Your task to perform on an android device: Open calendar and show me the first week of next month Image 0: 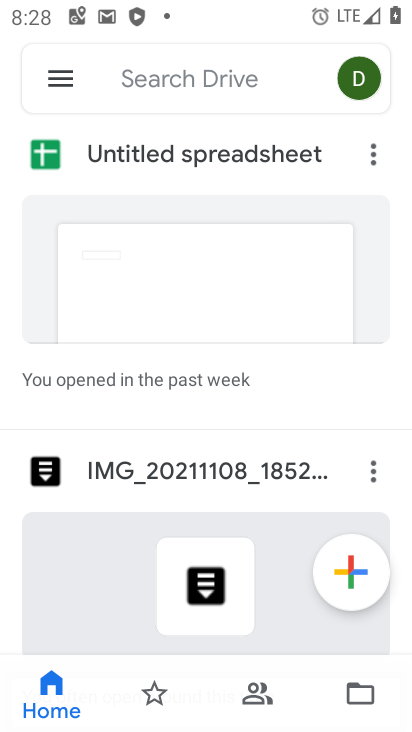
Step 0: press home button
Your task to perform on an android device: Open calendar and show me the first week of next month Image 1: 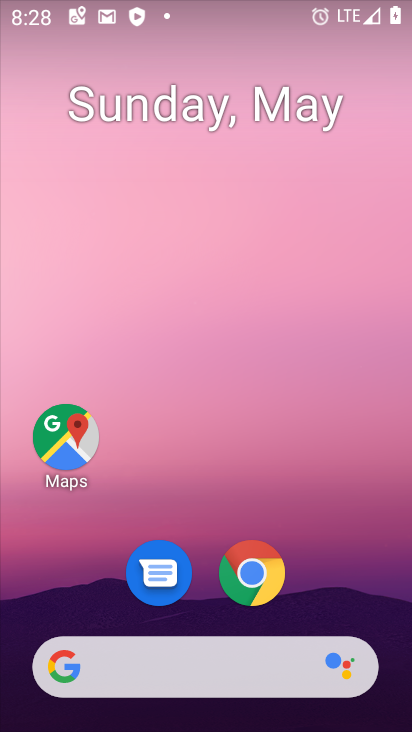
Step 1: drag from (219, 470) to (228, 9)
Your task to perform on an android device: Open calendar and show me the first week of next month Image 2: 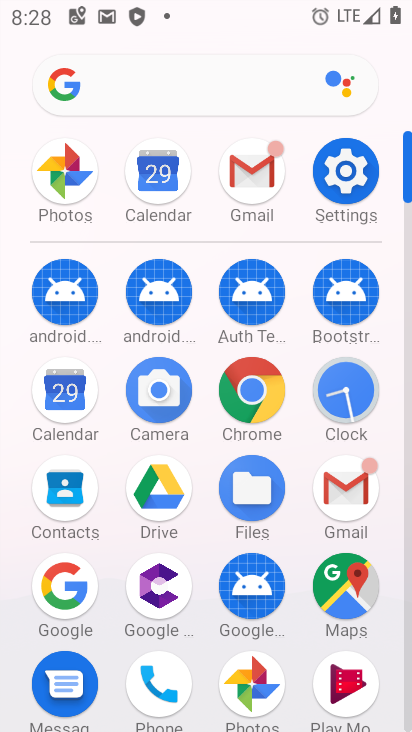
Step 2: click (164, 171)
Your task to perform on an android device: Open calendar and show me the first week of next month Image 3: 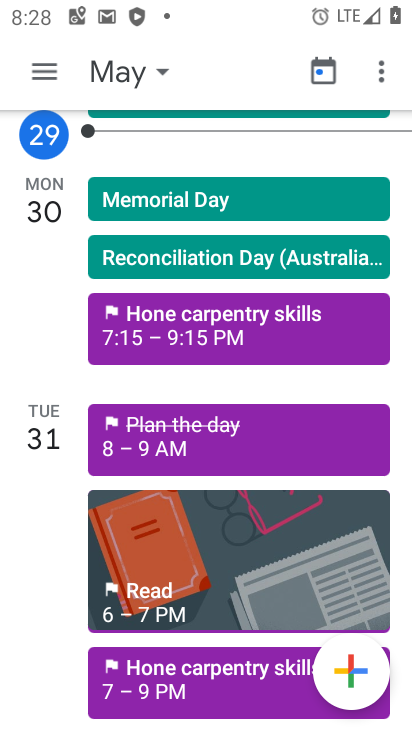
Step 3: click (47, 67)
Your task to perform on an android device: Open calendar and show me the first week of next month Image 4: 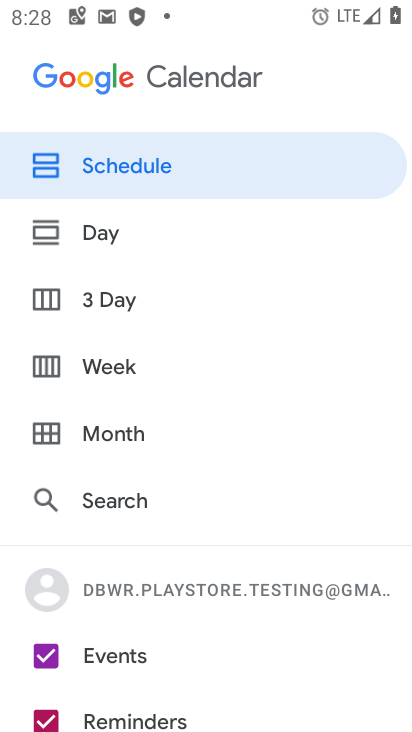
Step 4: click (46, 362)
Your task to perform on an android device: Open calendar and show me the first week of next month Image 5: 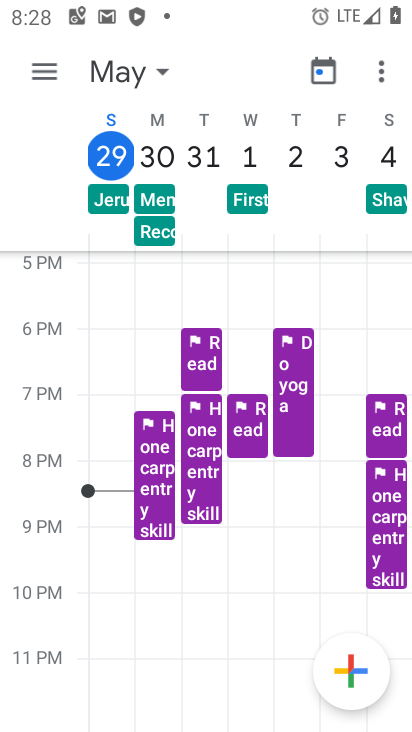
Step 5: task complete